Your task to perform on an android device: allow cookies in the chrome app Image 0: 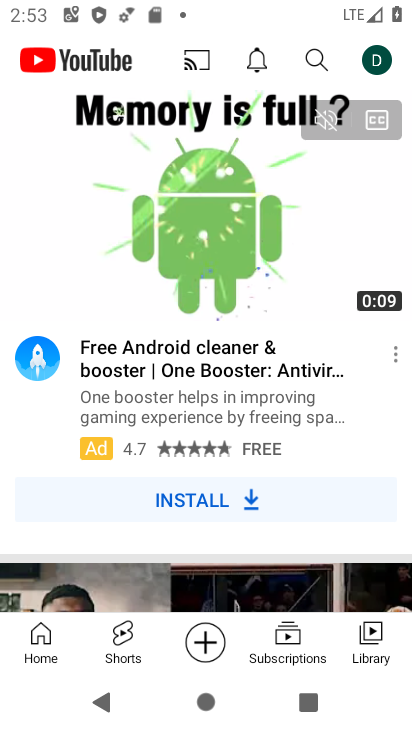
Step 0: press home button
Your task to perform on an android device: allow cookies in the chrome app Image 1: 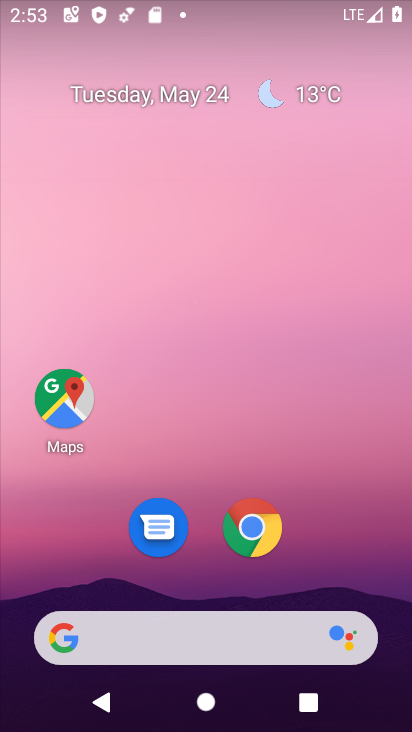
Step 1: click (257, 524)
Your task to perform on an android device: allow cookies in the chrome app Image 2: 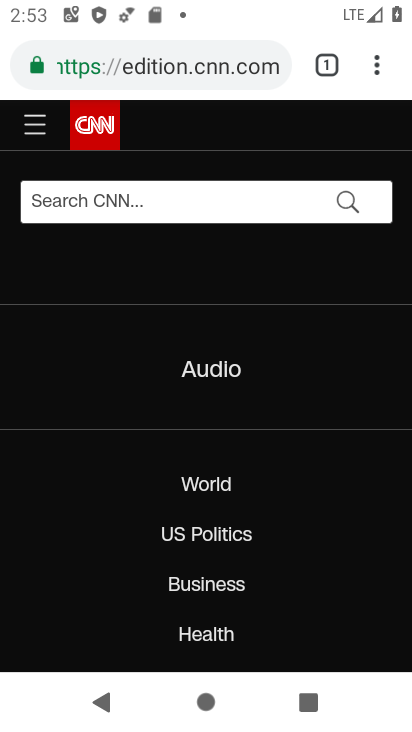
Step 2: click (377, 65)
Your task to perform on an android device: allow cookies in the chrome app Image 3: 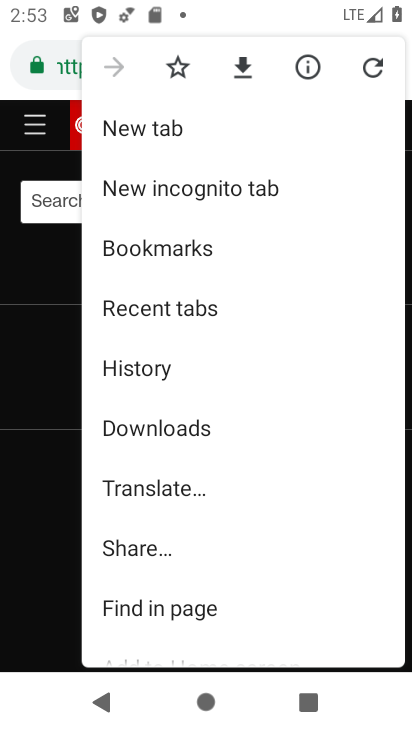
Step 3: drag from (253, 628) to (311, 262)
Your task to perform on an android device: allow cookies in the chrome app Image 4: 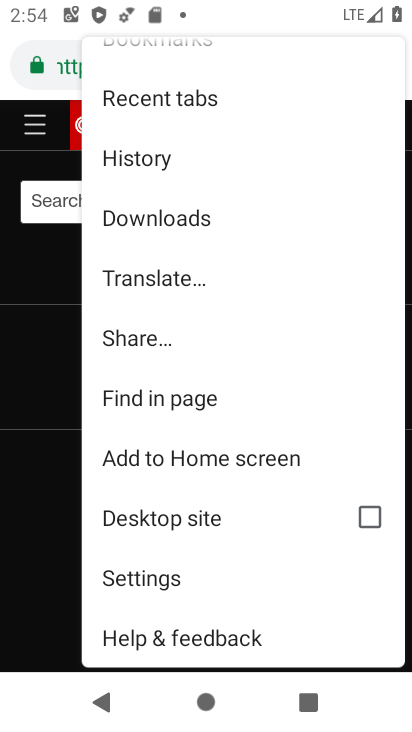
Step 4: click (201, 580)
Your task to perform on an android device: allow cookies in the chrome app Image 5: 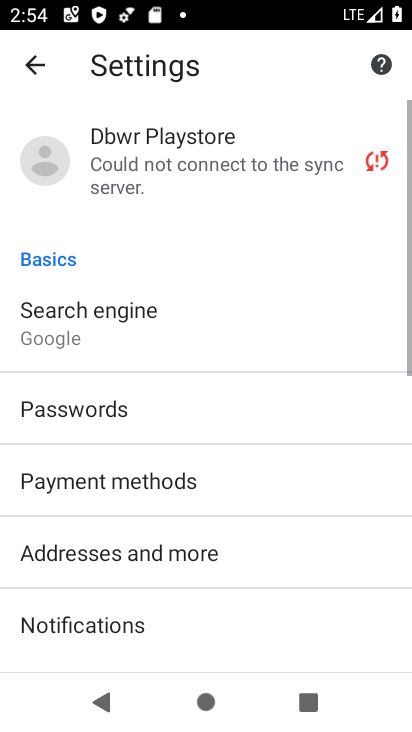
Step 5: drag from (202, 620) to (310, 215)
Your task to perform on an android device: allow cookies in the chrome app Image 6: 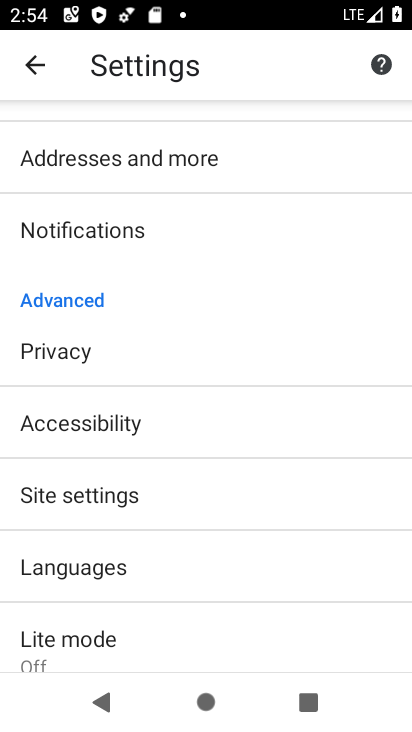
Step 6: click (138, 494)
Your task to perform on an android device: allow cookies in the chrome app Image 7: 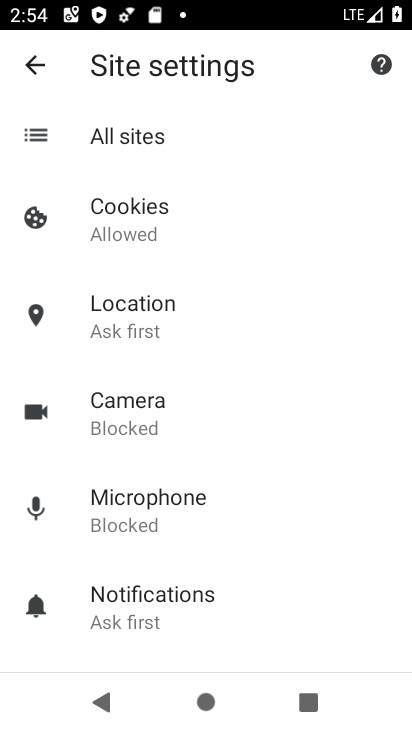
Step 7: click (119, 222)
Your task to perform on an android device: allow cookies in the chrome app Image 8: 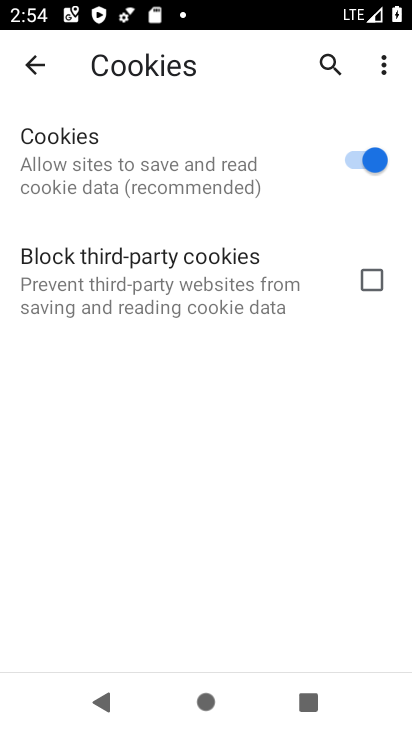
Step 8: task complete